Your task to perform on an android device: open wifi settings Image 0: 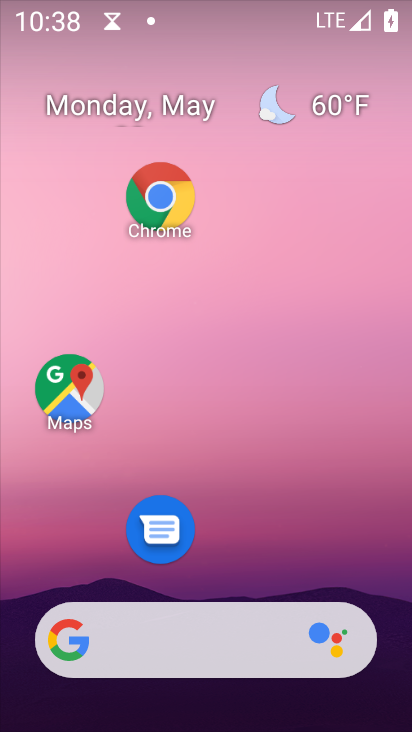
Step 0: drag from (235, 566) to (220, 164)
Your task to perform on an android device: open wifi settings Image 1: 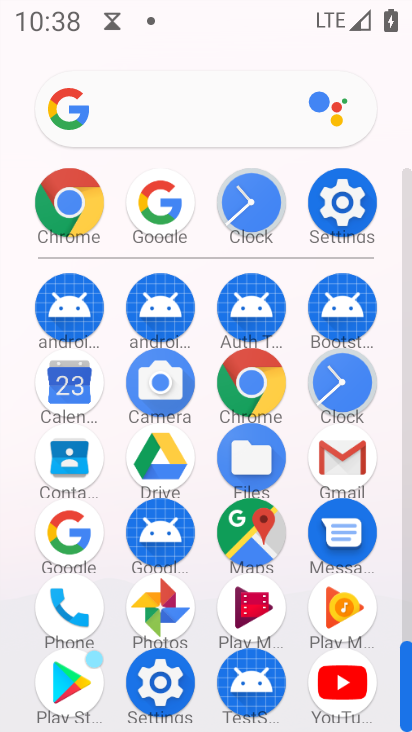
Step 1: click (340, 218)
Your task to perform on an android device: open wifi settings Image 2: 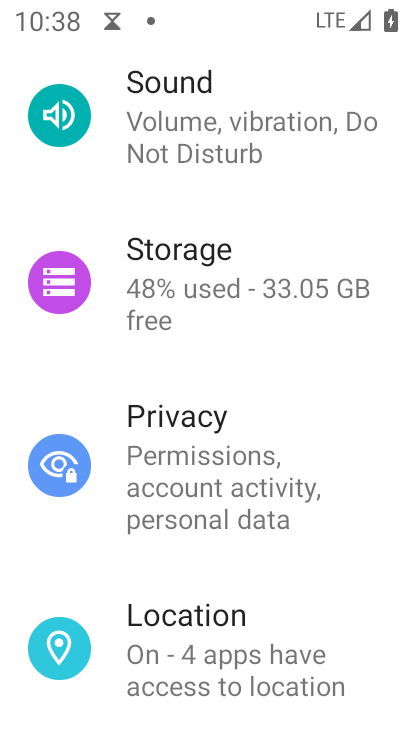
Step 2: drag from (203, 571) to (199, 671)
Your task to perform on an android device: open wifi settings Image 3: 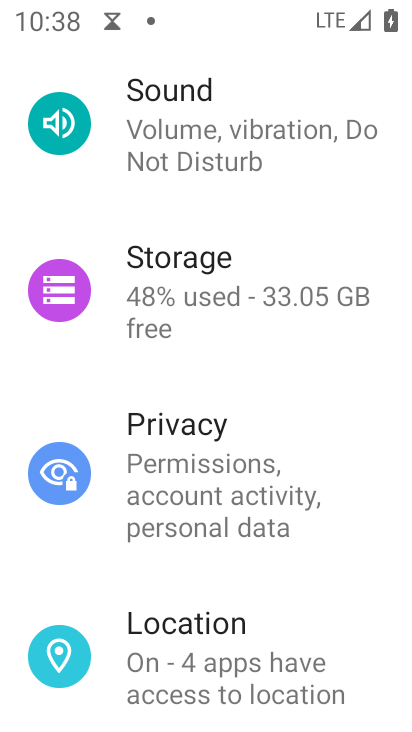
Step 3: drag from (202, 247) to (184, 692)
Your task to perform on an android device: open wifi settings Image 4: 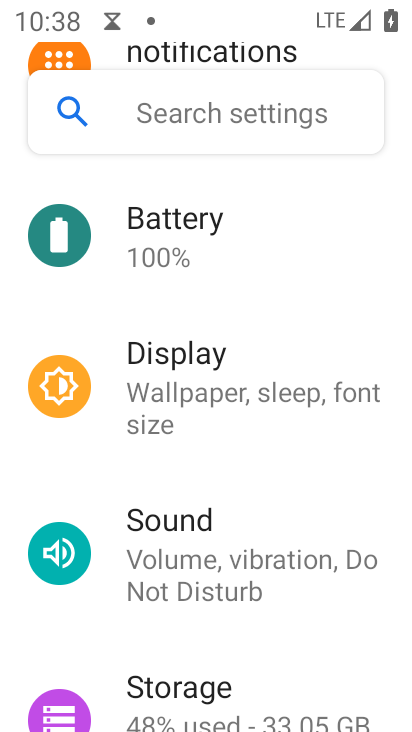
Step 4: drag from (208, 639) to (201, 731)
Your task to perform on an android device: open wifi settings Image 5: 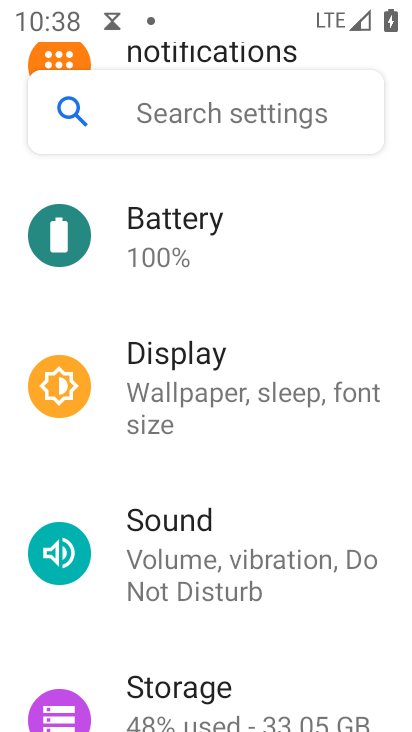
Step 5: drag from (235, 392) to (232, 560)
Your task to perform on an android device: open wifi settings Image 6: 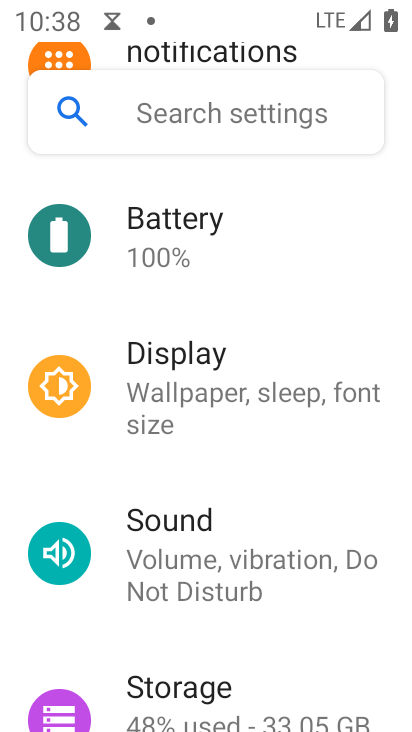
Step 6: drag from (216, 243) to (175, 699)
Your task to perform on an android device: open wifi settings Image 7: 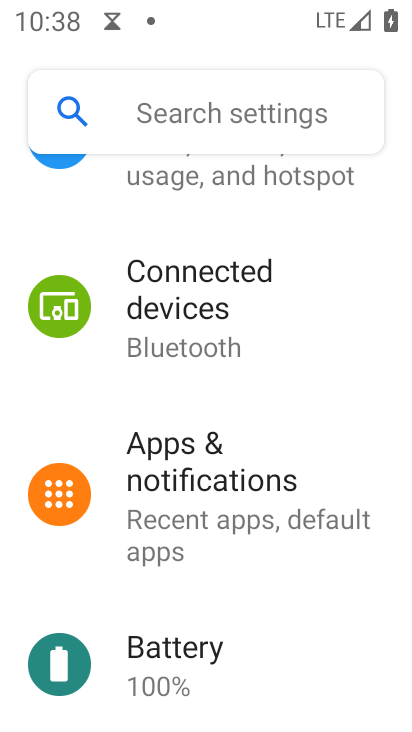
Step 7: drag from (240, 316) to (196, 723)
Your task to perform on an android device: open wifi settings Image 8: 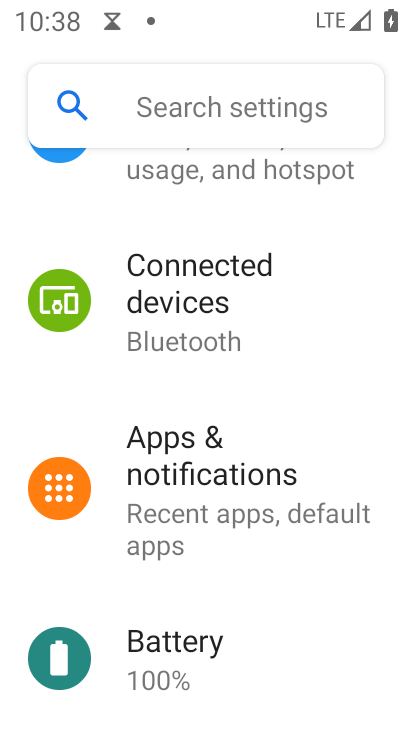
Step 8: drag from (136, 252) to (128, 713)
Your task to perform on an android device: open wifi settings Image 9: 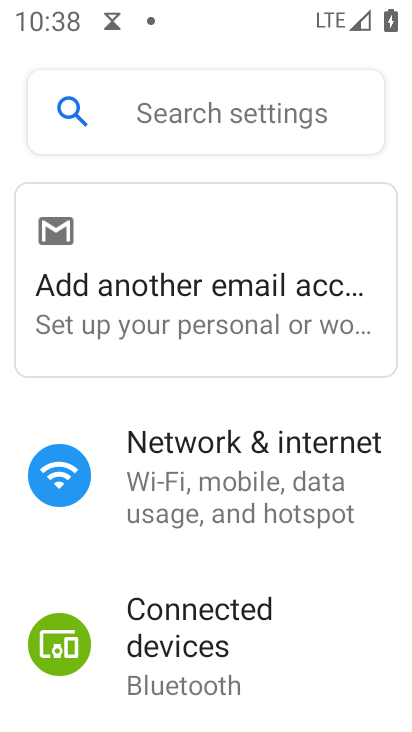
Step 9: click (186, 488)
Your task to perform on an android device: open wifi settings Image 10: 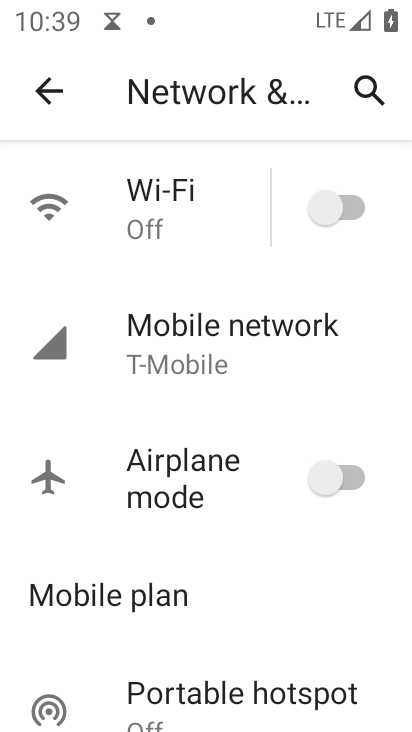
Step 10: task complete